Your task to perform on an android device: remove spam from my inbox in the gmail app Image 0: 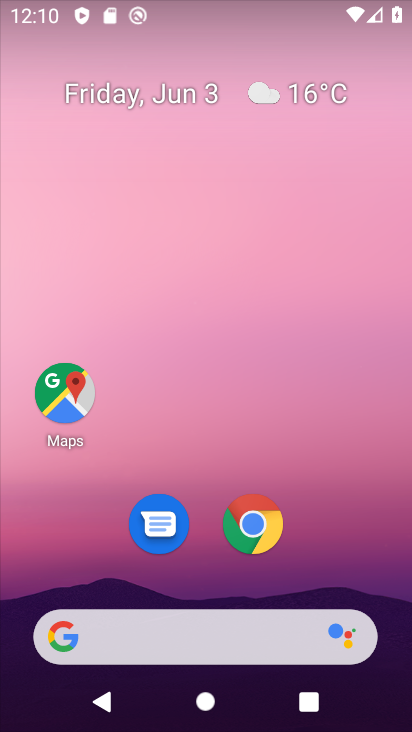
Step 0: drag from (227, 453) to (229, 1)
Your task to perform on an android device: remove spam from my inbox in the gmail app Image 1: 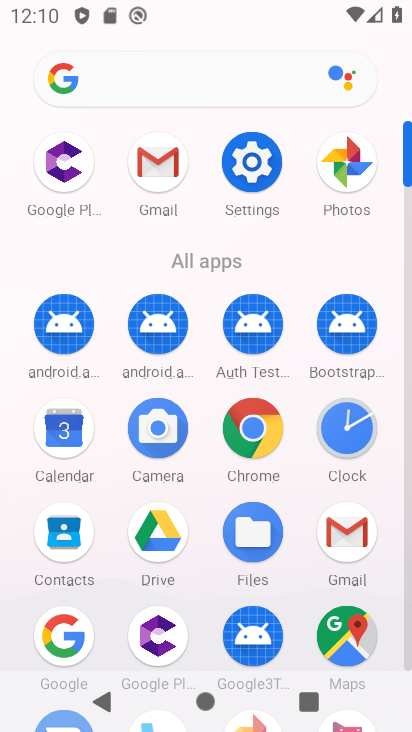
Step 1: click (158, 161)
Your task to perform on an android device: remove spam from my inbox in the gmail app Image 2: 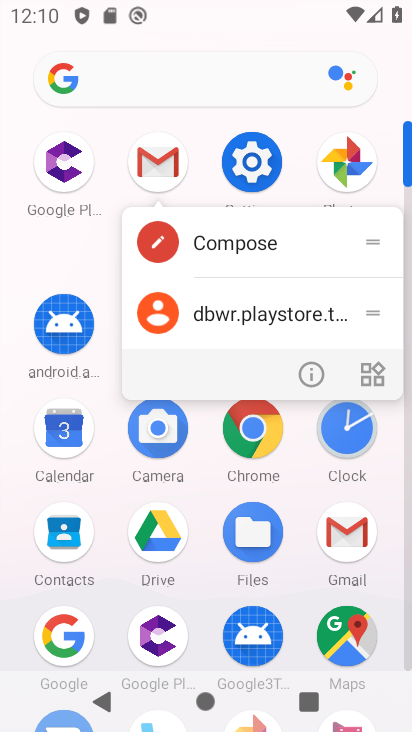
Step 2: click (158, 158)
Your task to perform on an android device: remove spam from my inbox in the gmail app Image 3: 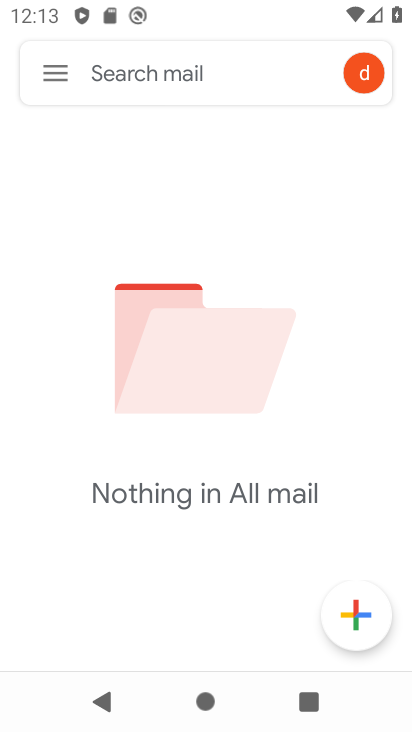
Step 3: task complete